Your task to perform on an android device: turn on bluetooth scan Image 0: 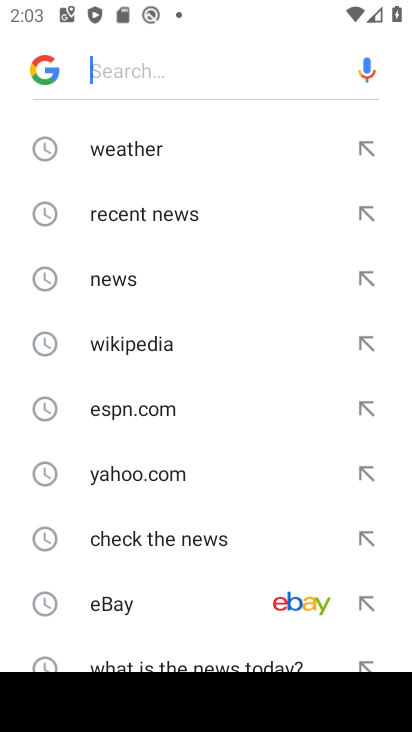
Step 0: press back button
Your task to perform on an android device: turn on bluetooth scan Image 1: 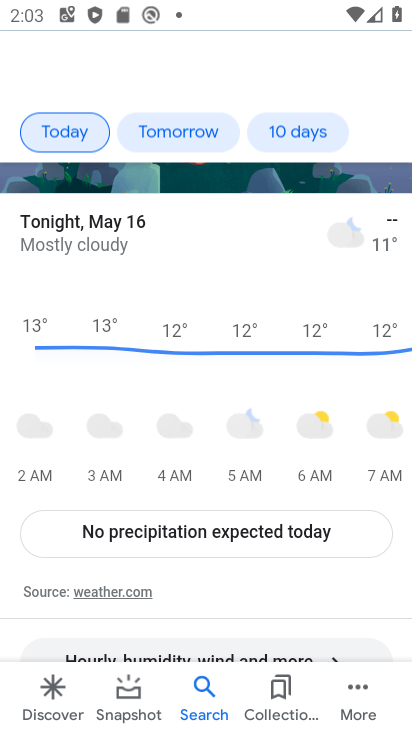
Step 1: press home button
Your task to perform on an android device: turn on bluetooth scan Image 2: 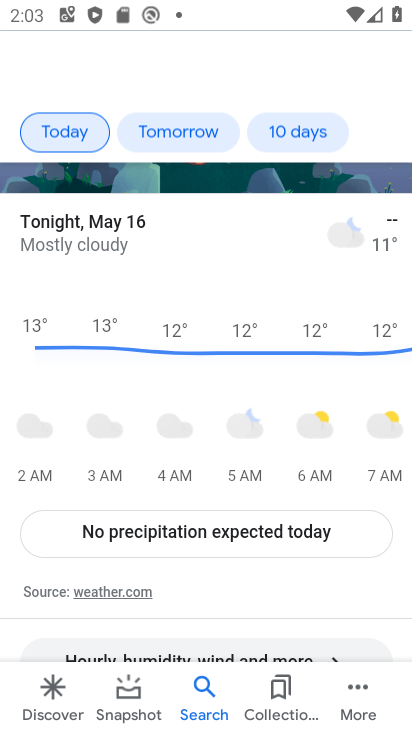
Step 2: press home button
Your task to perform on an android device: turn on bluetooth scan Image 3: 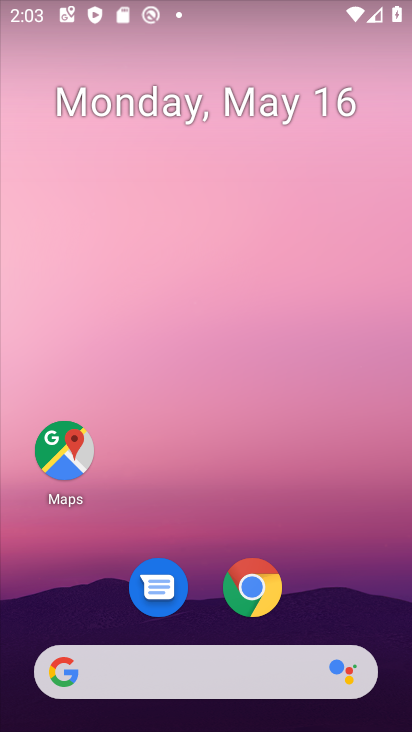
Step 3: drag from (344, 602) to (144, 121)
Your task to perform on an android device: turn on bluetooth scan Image 4: 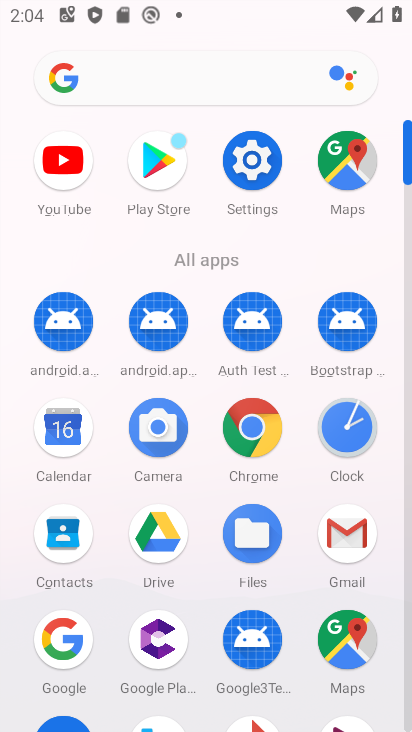
Step 4: click (242, 175)
Your task to perform on an android device: turn on bluetooth scan Image 5: 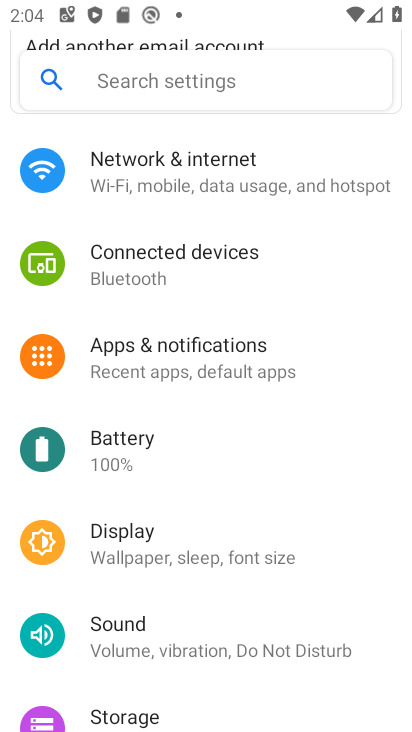
Step 5: drag from (174, 556) to (140, 204)
Your task to perform on an android device: turn on bluetooth scan Image 6: 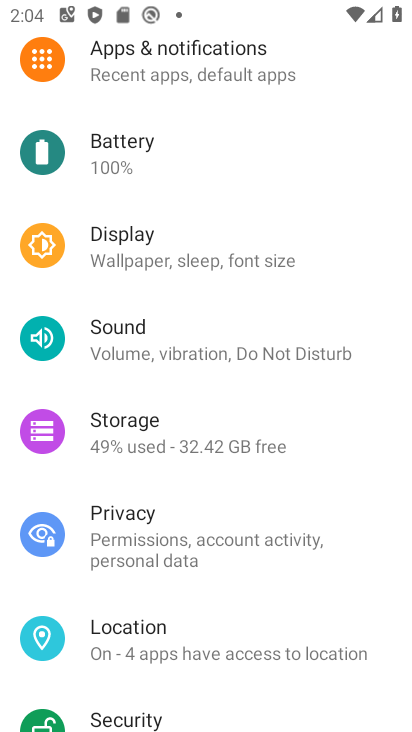
Step 6: click (191, 63)
Your task to perform on an android device: turn on bluetooth scan Image 7: 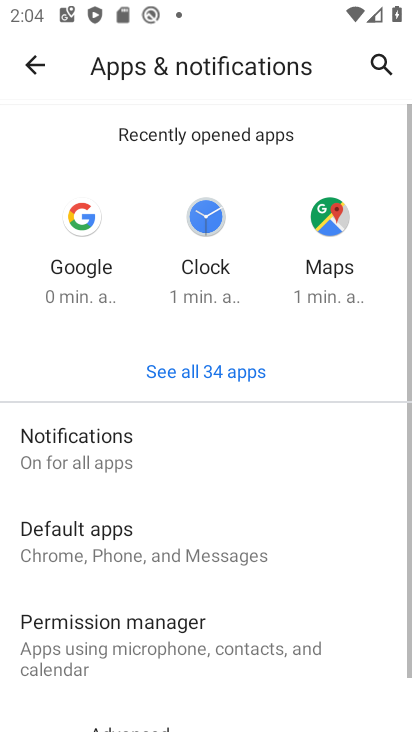
Step 7: click (40, 68)
Your task to perform on an android device: turn on bluetooth scan Image 8: 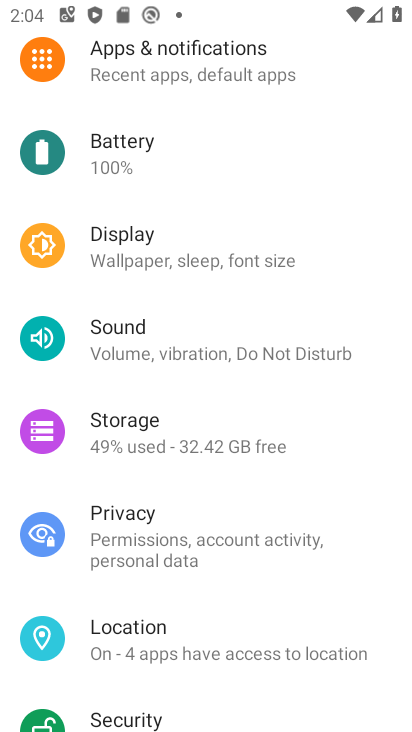
Step 8: click (143, 638)
Your task to perform on an android device: turn on bluetooth scan Image 9: 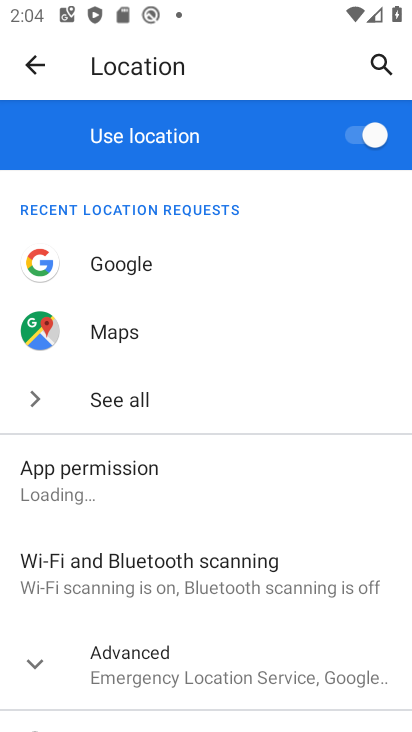
Step 9: click (96, 574)
Your task to perform on an android device: turn on bluetooth scan Image 10: 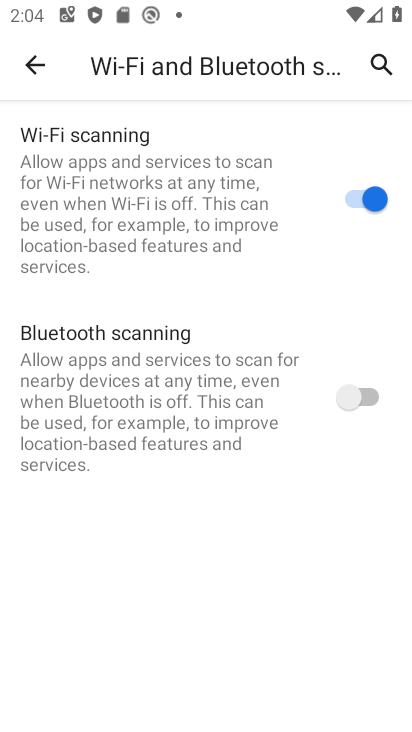
Step 10: click (347, 398)
Your task to perform on an android device: turn on bluetooth scan Image 11: 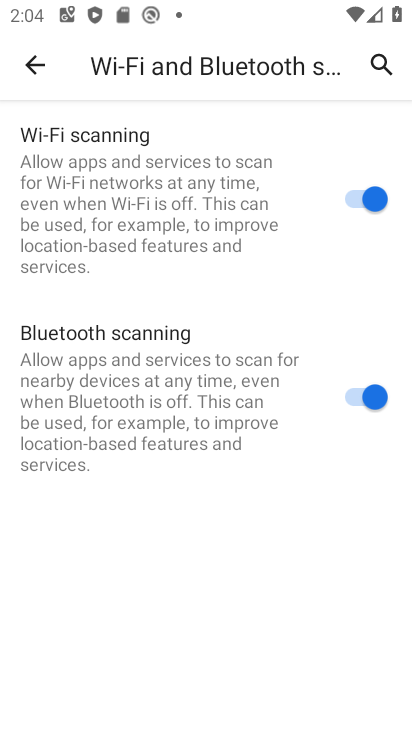
Step 11: task complete